Your task to perform on an android device: Open Google Image 0: 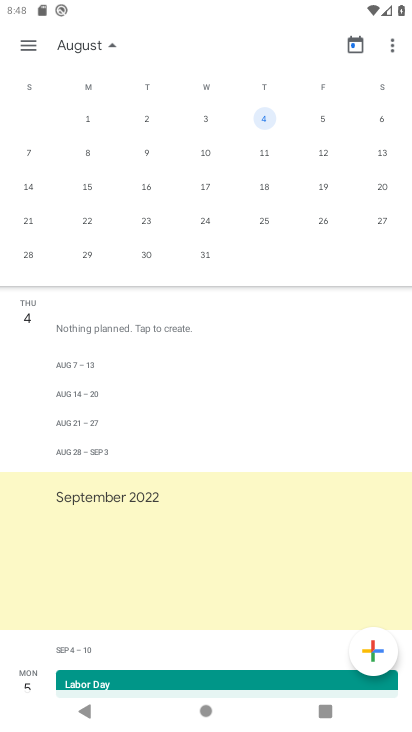
Step 0: press home button
Your task to perform on an android device: Open Google Image 1: 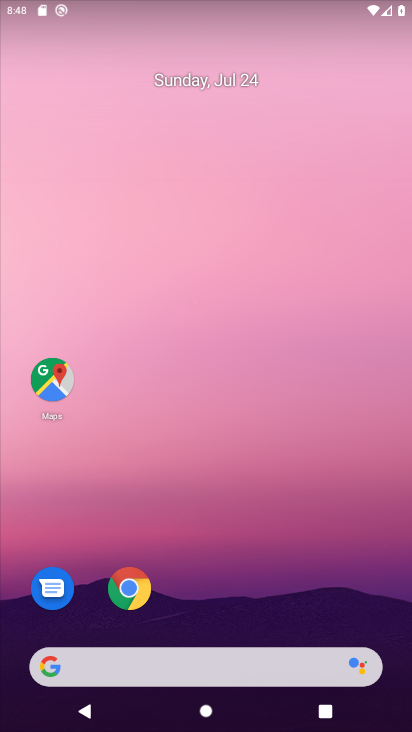
Step 1: drag from (393, 680) to (333, 40)
Your task to perform on an android device: Open Google Image 2: 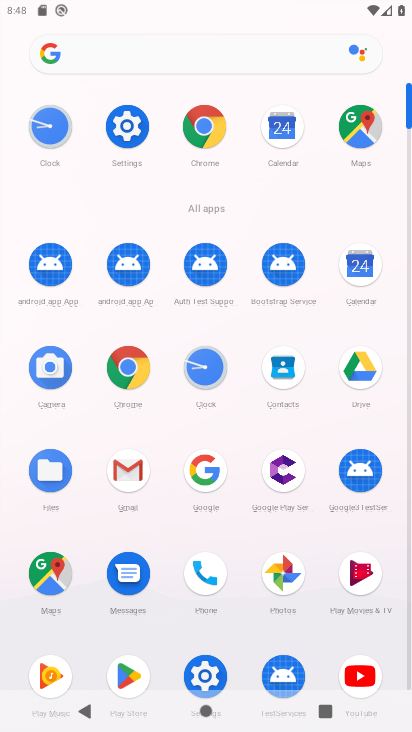
Step 2: click (210, 484)
Your task to perform on an android device: Open Google Image 3: 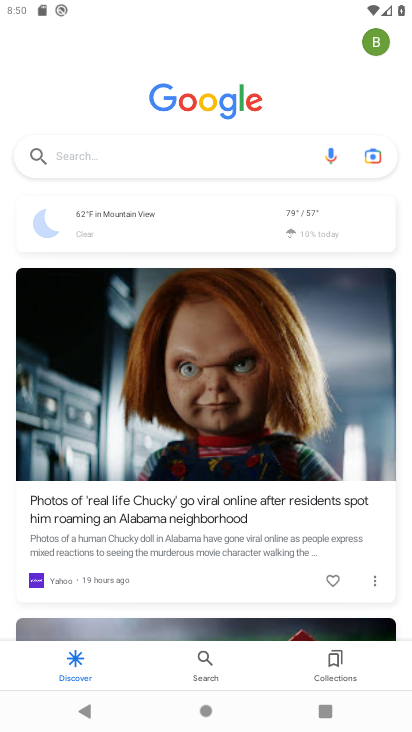
Step 3: task complete